Your task to perform on an android device: turn notification dots on Image 0: 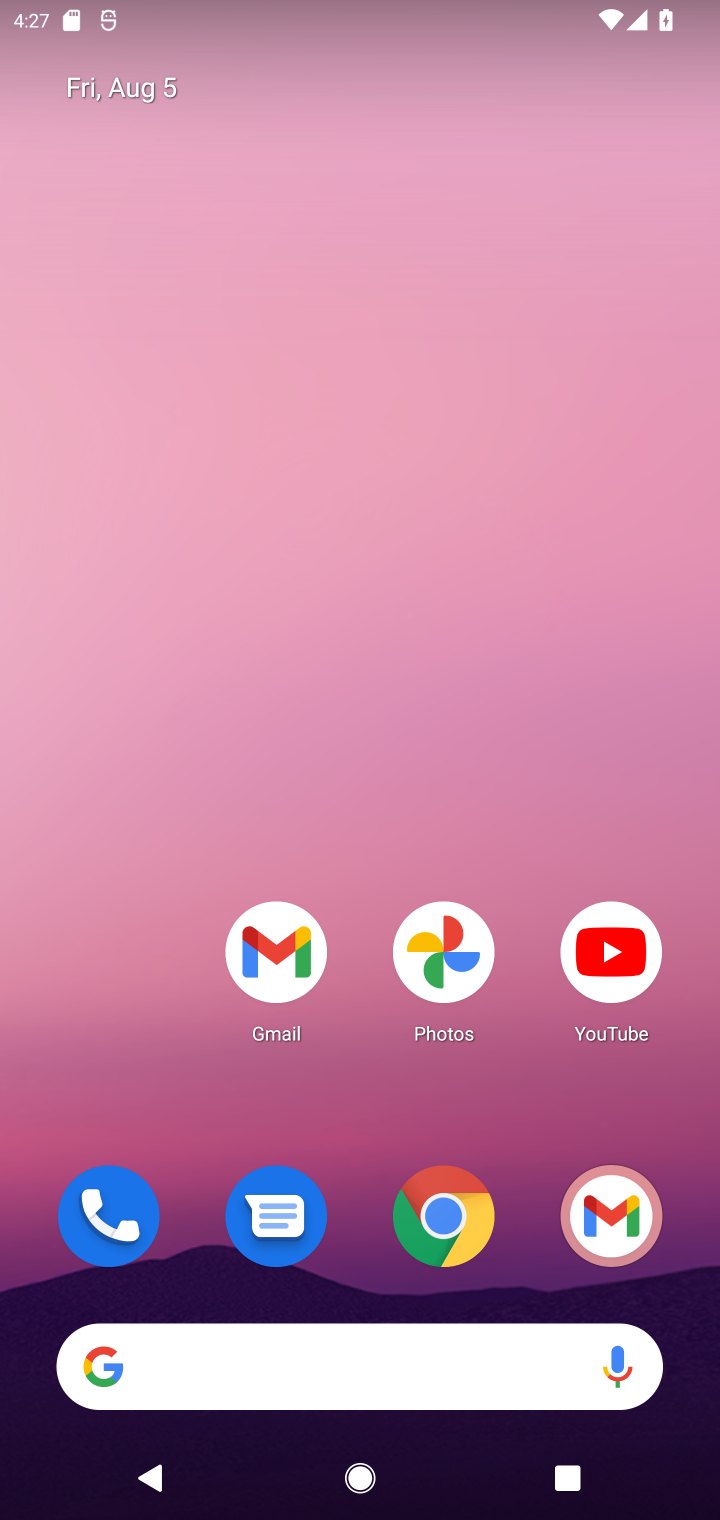
Step 0: drag from (335, 734) to (297, 133)
Your task to perform on an android device: turn notification dots on Image 1: 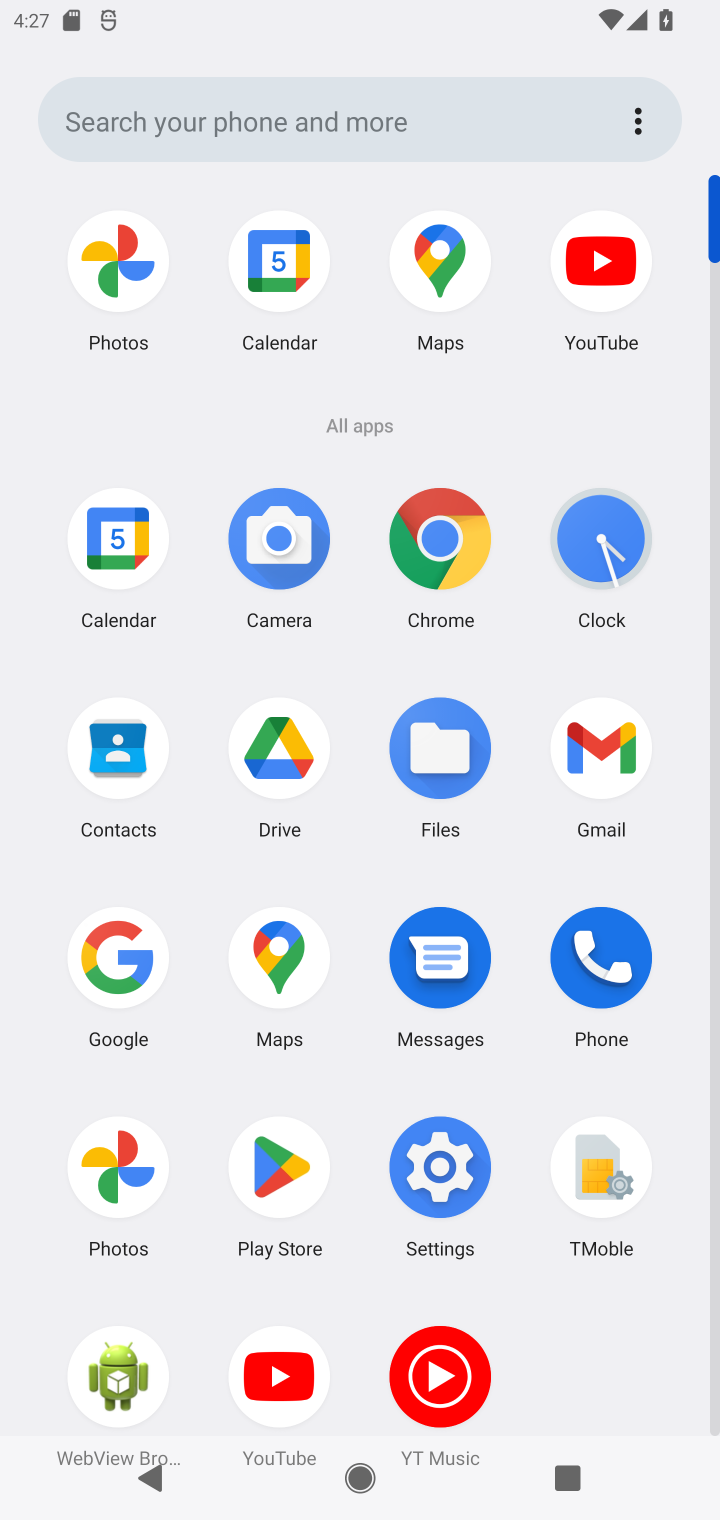
Step 1: click (473, 1166)
Your task to perform on an android device: turn notification dots on Image 2: 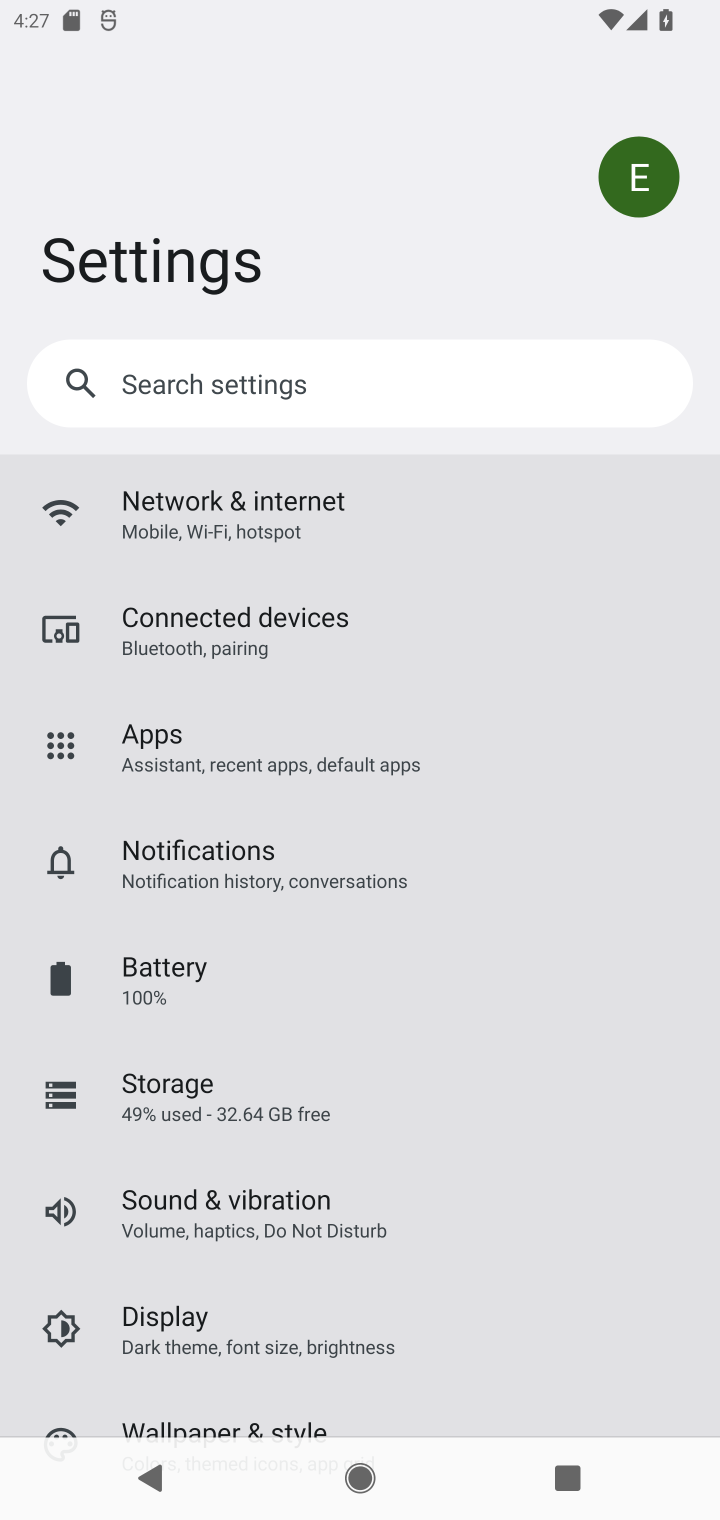
Step 2: click (244, 862)
Your task to perform on an android device: turn notification dots on Image 3: 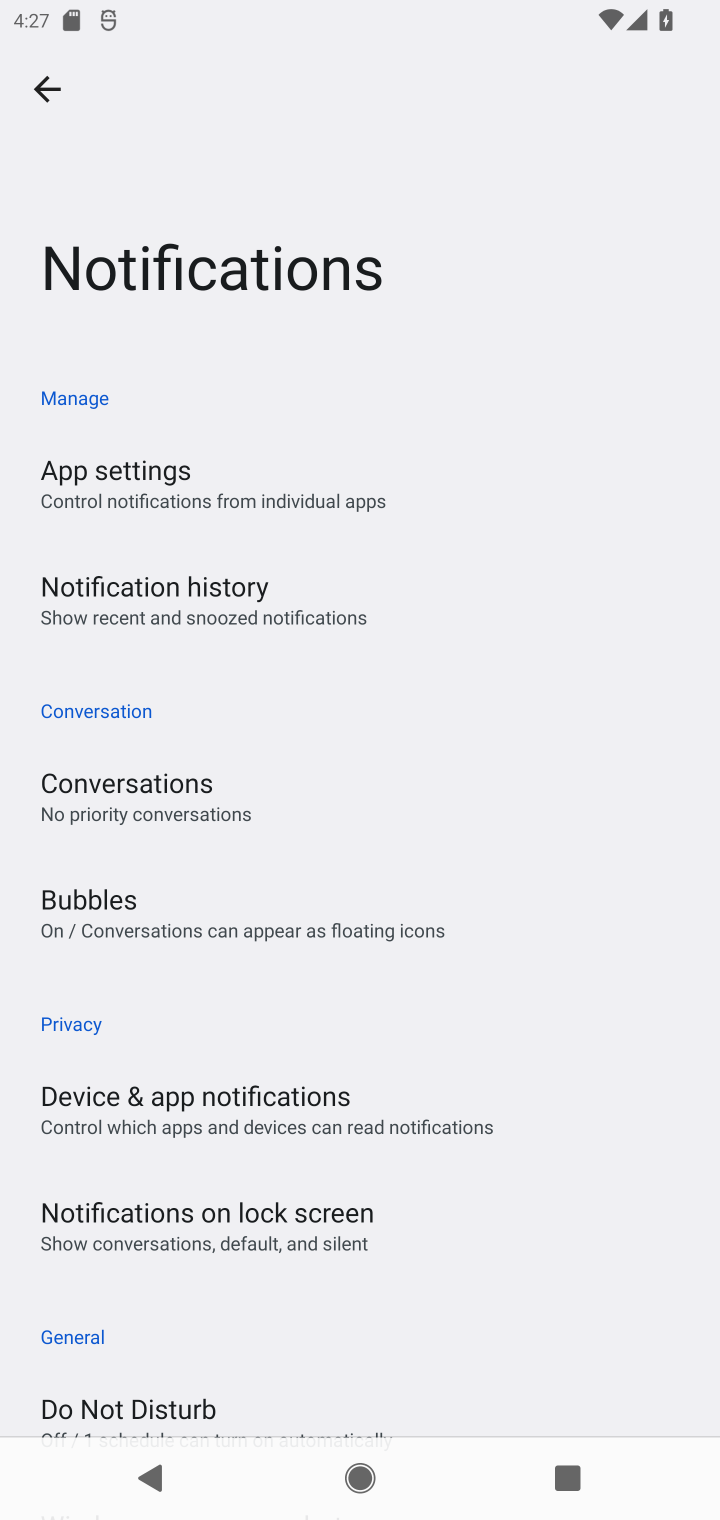
Step 3: task complete